Your task to perform on an android device: uninstall "DoorDash - Dasher" Image 0: 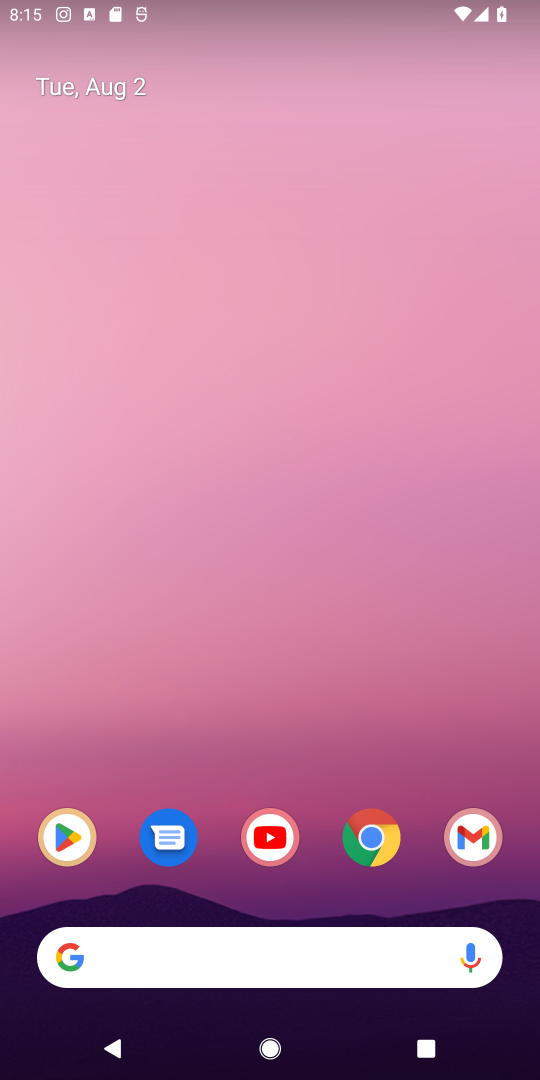
Step 0: click (59, 851)
Your task to perform on an android device: uninstall "DoorDash - Dasher" Image 1: 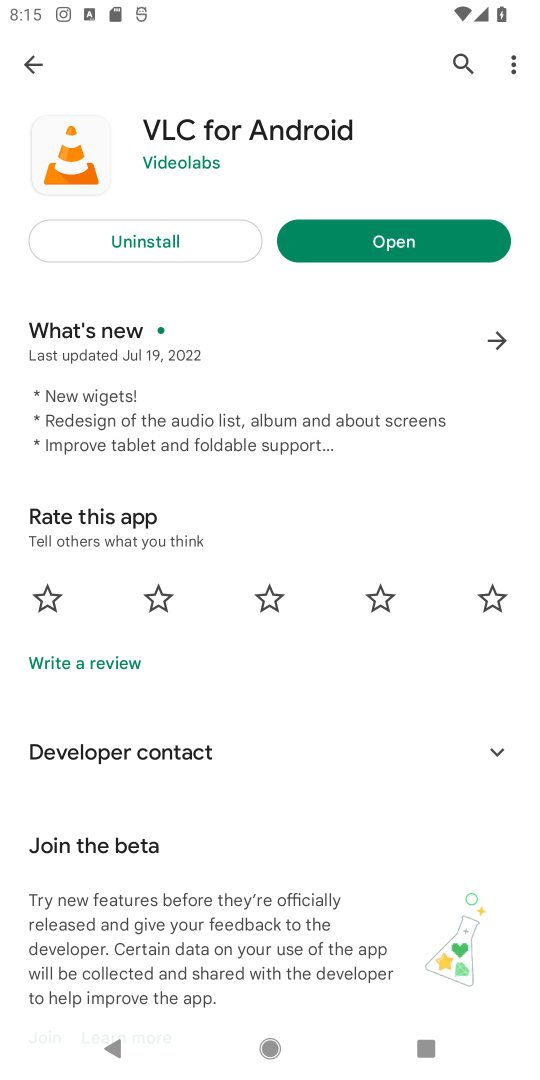
Step 1: click (468, 63)
Your task to perform on an android device: uninstall "DoorDash - Dasher" Image 2: 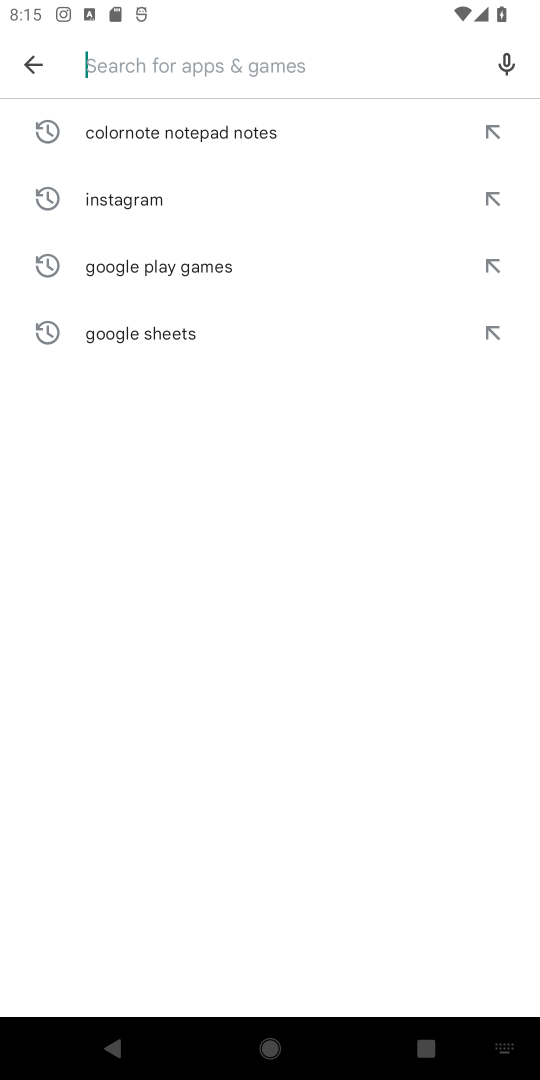
Step 2: type "DoorDash - Dasher"
Your task to perform on an android device: uninstall "DoorDash - Dasher" Image 3: 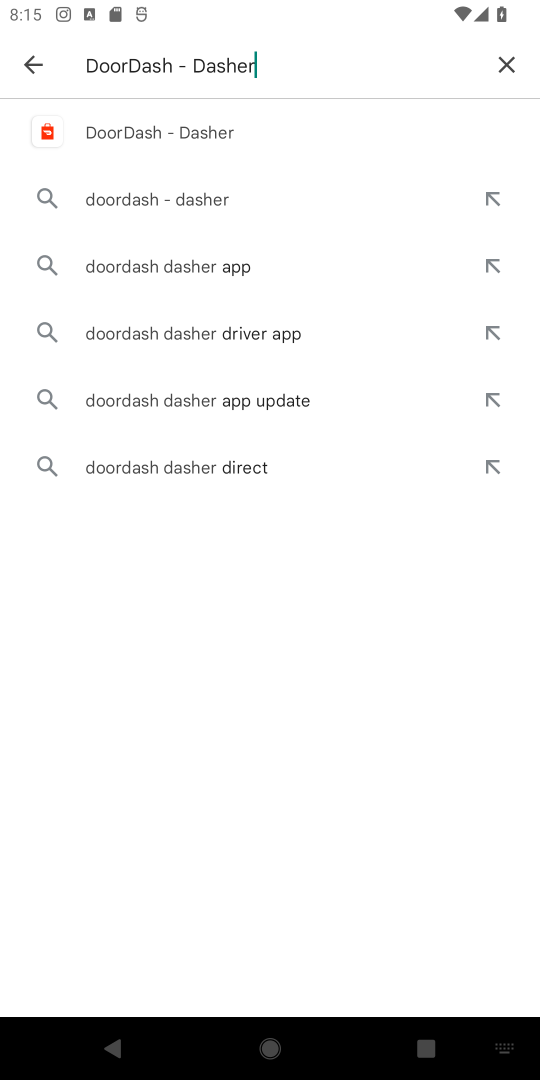
Step 3: click (161, 146)
Your task to perform on an android device: uninstall "DoorDash - Dasher" Image 4: 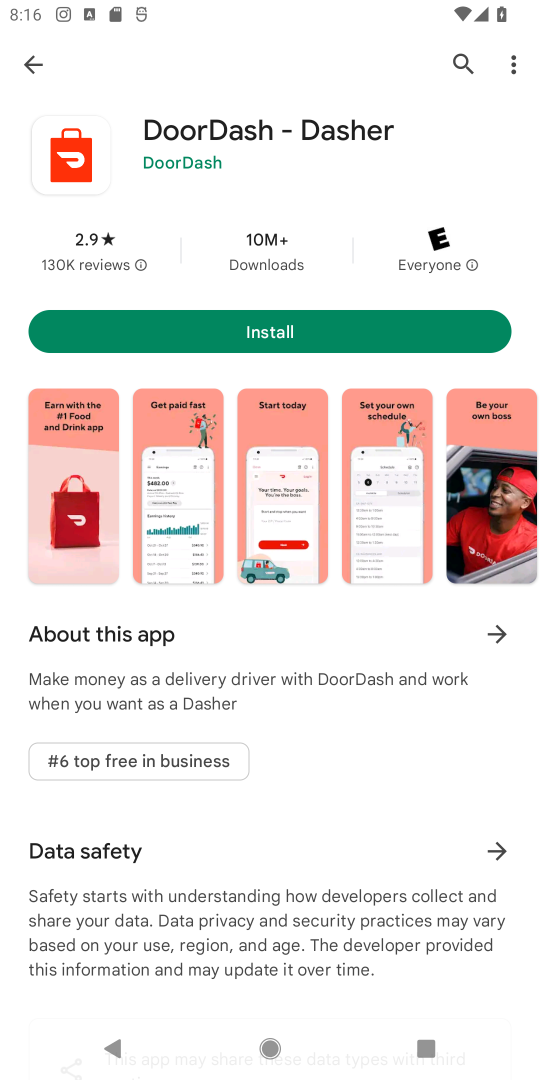
Step 4: task complete